Your task to perform on an android device: Go to privacy settings Image 0: 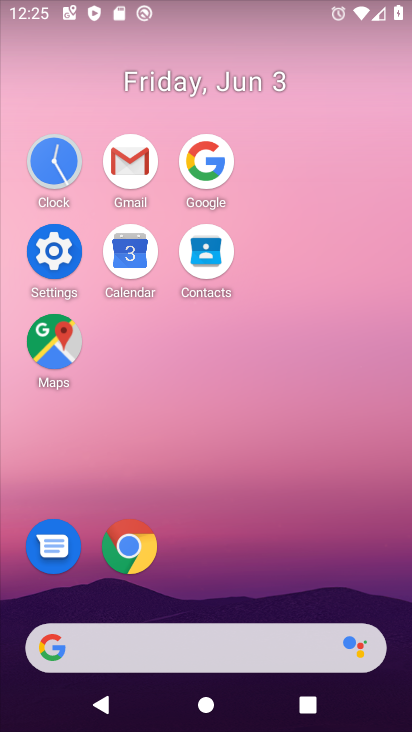
Step 0: click (54, 256)
Your task to perform on an android device: Go to privacy settings Image 1: 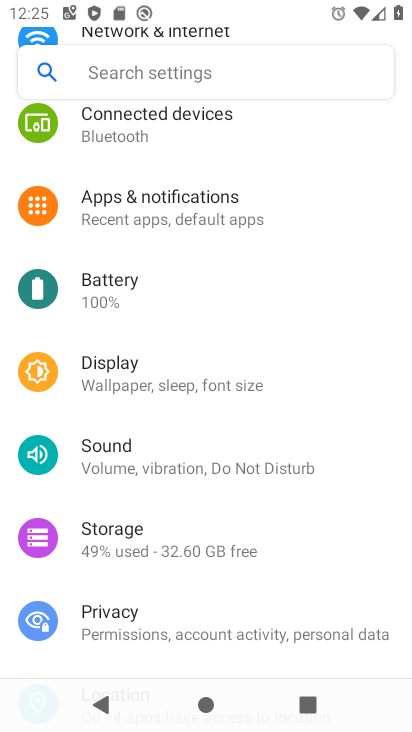
Step 1: drag from (303, 596) to (304, 312)
Your task to perform on an android device: Go to privacy settings Image 2: 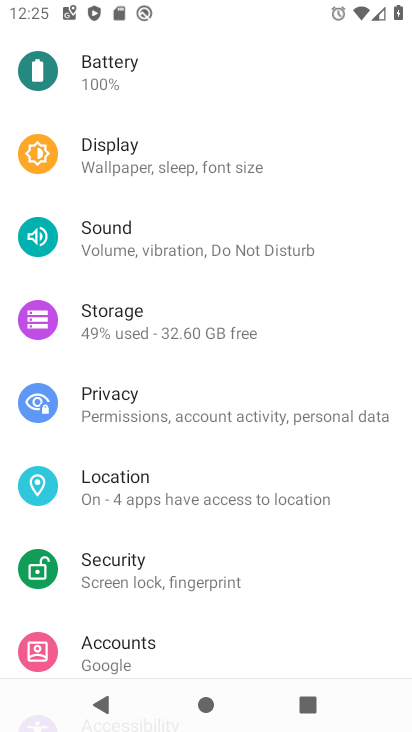
Step 2: click (200, 409)
Your task to perform on an android device: Go to privacy settings Image 3: 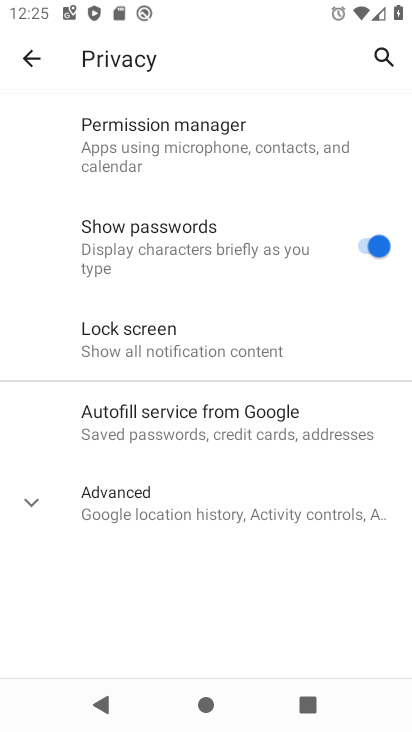
Step 3: task complete